Your task to perform on an android device: Is it going to rain this weekend? Image 0: 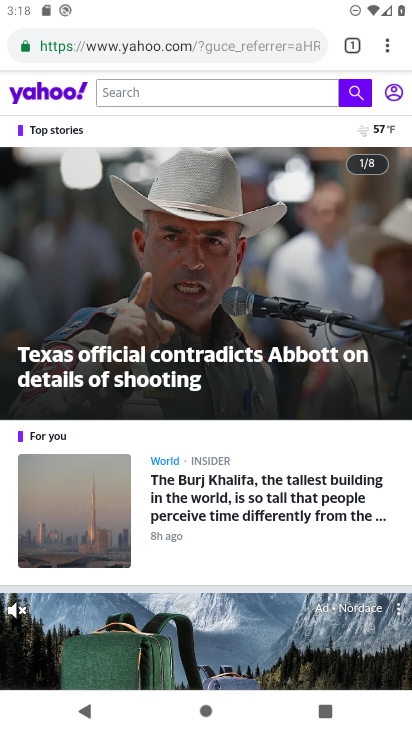
Step 0: press home button
Your task to perform on an android device: Is it going to rain this weekend? Image 1: 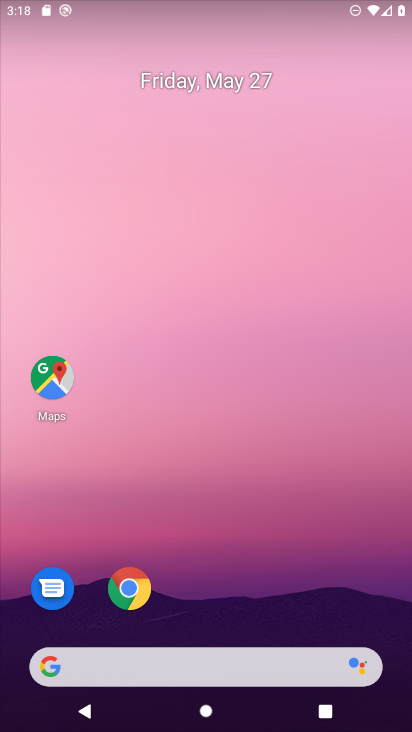
Step 1: drag from (13, 134) to (390, 142)
Your task to perform on an android device: Is it going to rain this weekend? Image 2: 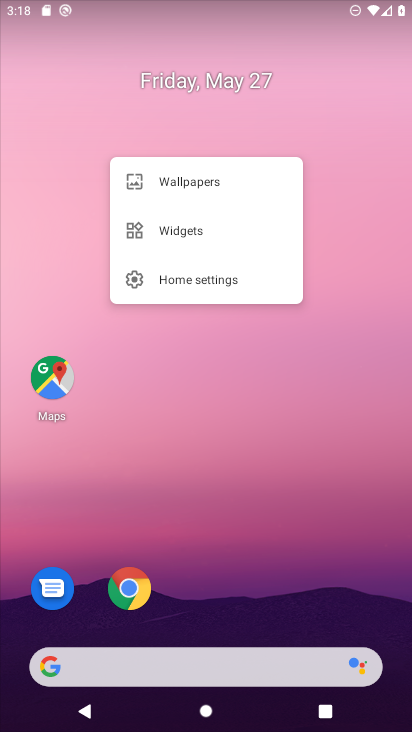
Step 2: drag from (4, 144) to (351, 190)
Your task to perform on an android device: Is it going to rain this weekend? Image 3: 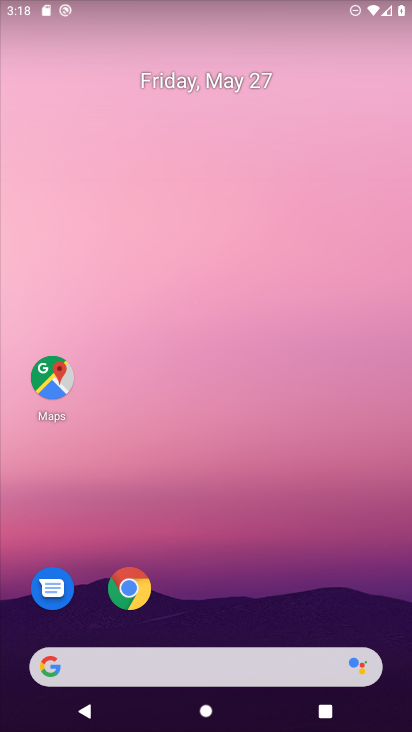
Step 3: drag from (12, 164) to (393, 252)
Your task to perform on an android device: Is it going to rain this weekend? Image 4: 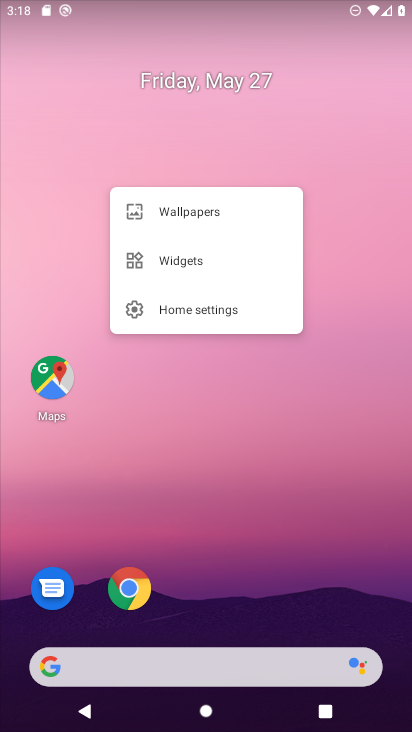
Step 4: drag from (11, 231) to (322, 362)
Your task to perform on an android device: Is it going to rain this weekend? Image 5: 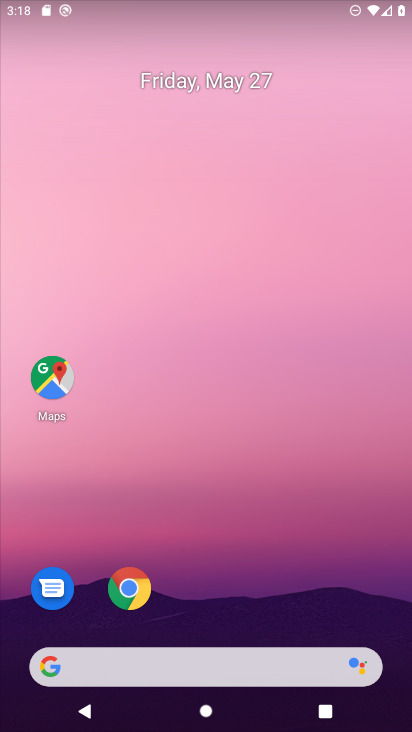
Step 5: drag from (10, 258) to (410, 175)
Your task to perform on an android device: Is it going to rain this weekend? Image 6: 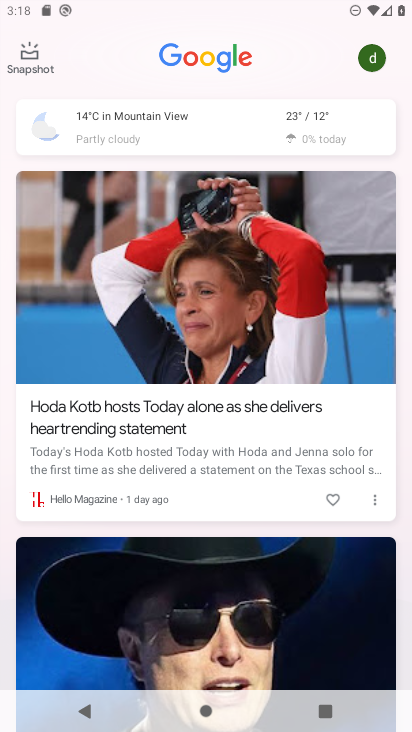
Step 6: click (323, 127)
Your task to perform on an android device: Is it going to rain this weekend? Image 7: 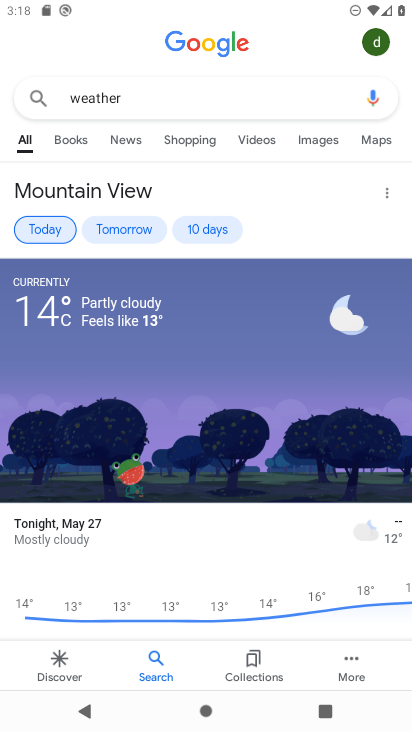
Step 7: click (195, 233)
Your task to perform on an android device: Is it going to rain this weekend? Image 8: 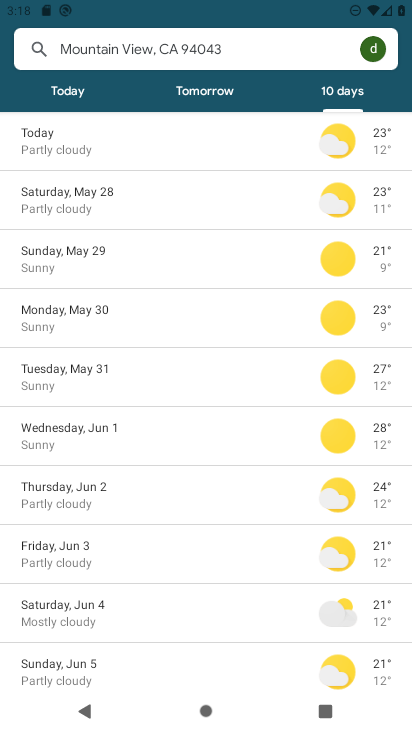
Step 8: task complete